Your task to perform on an android device: Go to Reddit.com Image 0: 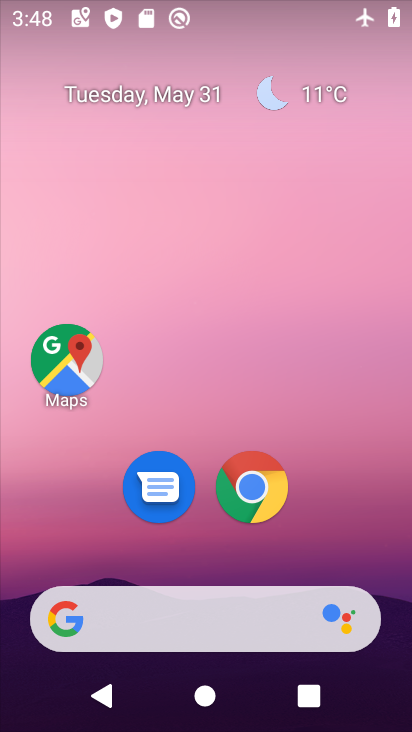
Step 0: click (250, 489)
Your task to perform on an android device: Go to Reddit.com Image 1: 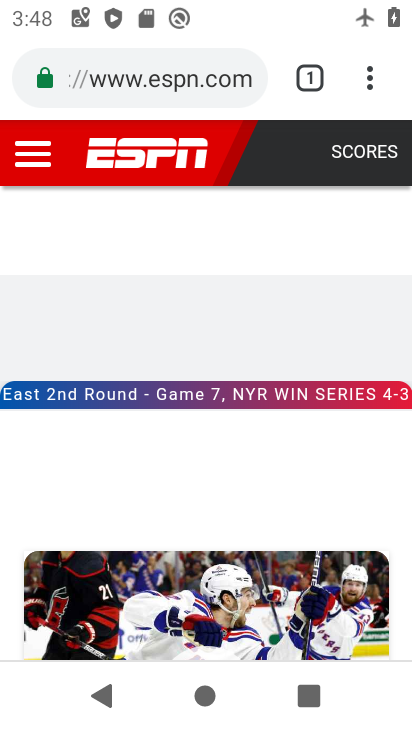
Step 1: click (195, 76)
Your task to perform on an android device: Go to Reddit.com Image 2: 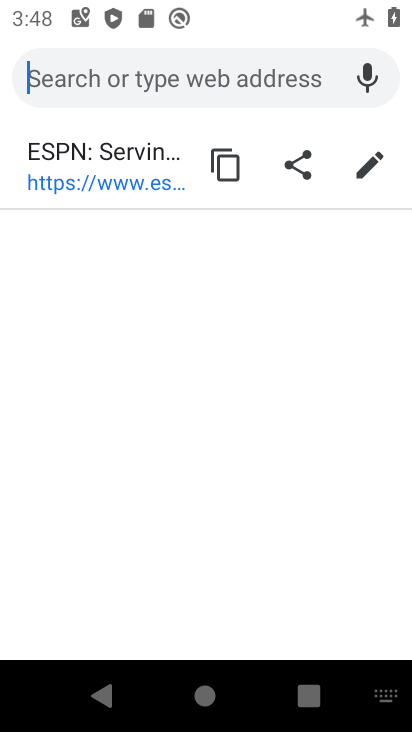
Step 2: type "Reddit.com"
Your task to perform on an android device: Go to Reddit.com Image 3: 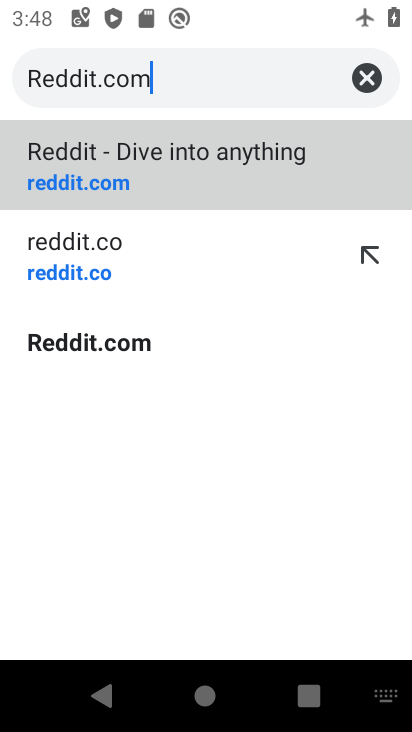
Step 3: type ""
Your task to perform on an android device: Go to Reddit.com Image 4: 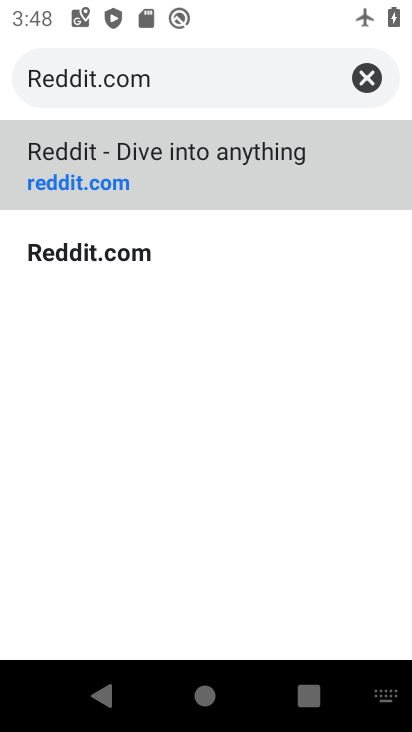
Step 4: click (137, 177)
Your task to perform on an android device: Go to Reddit.com Image 5: 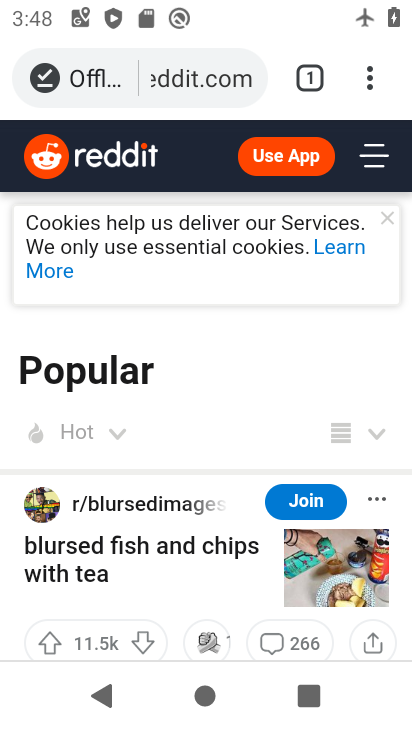
Step 5: task complete